Your task to perform on an android device: toggle wifi Image 0: 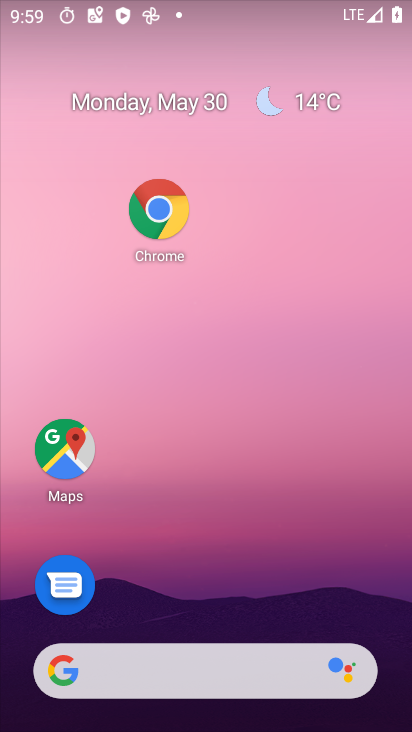
Step 0: drag from (196, 633) to (16, 507)
Your task to perform on an android device: toggle wifi Image 1: 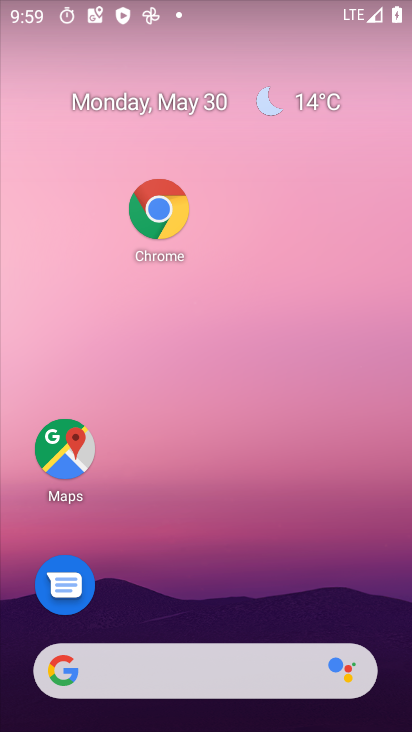
Step 1: drag from (170, 606) to (265, 17)
Your task to perform on an android device: toggle wifi Image 2: 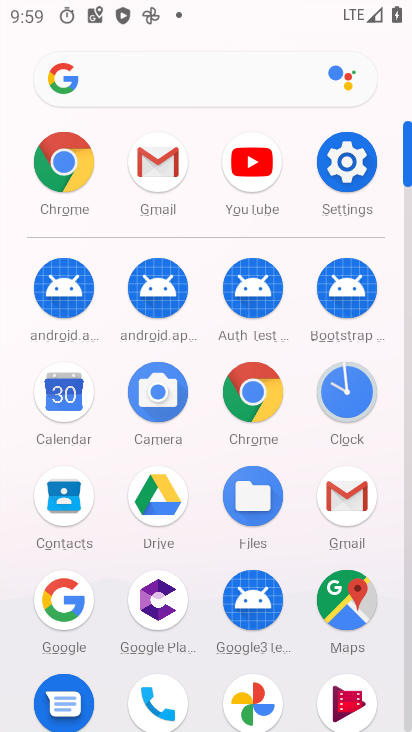
Step 2: click (343, 162)
Your task to perform on an android device: toggle wifi Image 3: 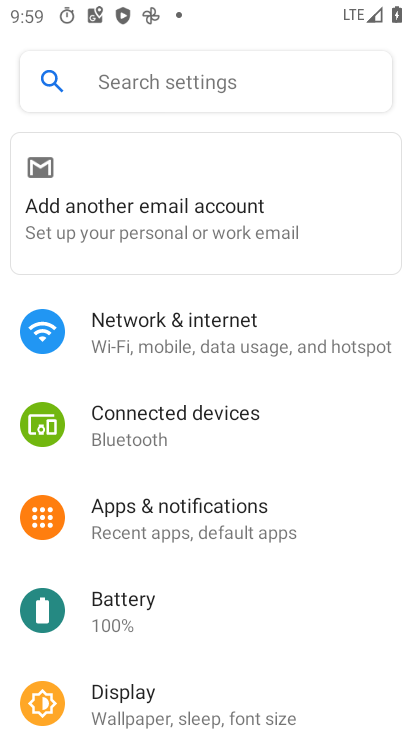
Step 3: click (145, 342)
Your task to perform on an android device: toggle wifi Image 4: 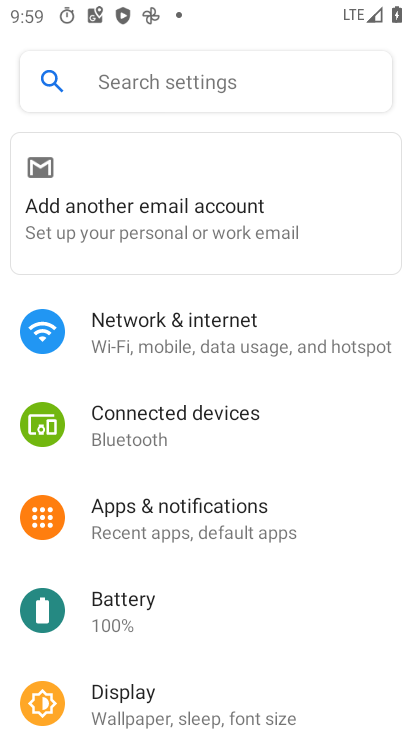
Step 4: click (145, 342)
Your task to perform on an android device: toggle wifi Image 5: 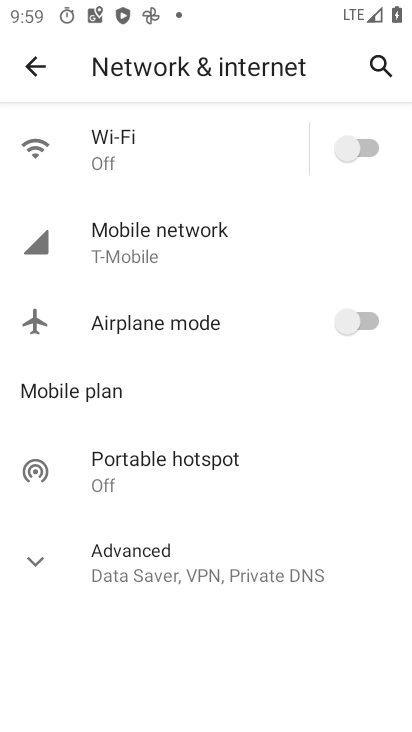
Step 5: click (217, 150)
Your task to perform on an android device: toggle wifi Image 6: 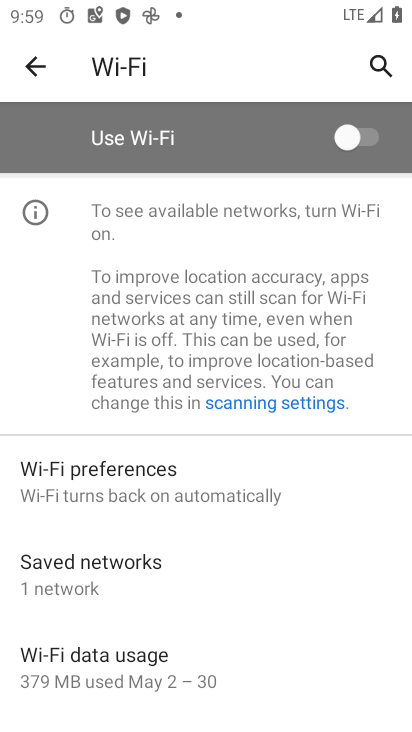
Step 6: click (335, 139)
Your task to perform on an android device: toggle wifi Image 7: 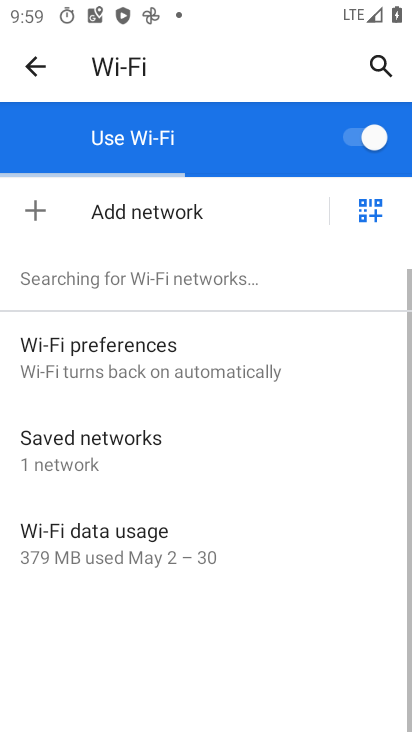
Step 7: task complete